Your task to perform on an android device: Open Android settings Image 0: 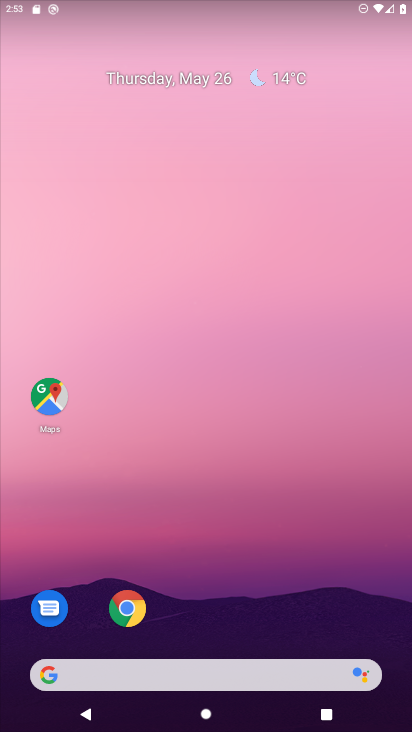
Step 0: drag from (288, 600) to (302, 145)
Your task to perform on an android device: Open Android settings Image 1: 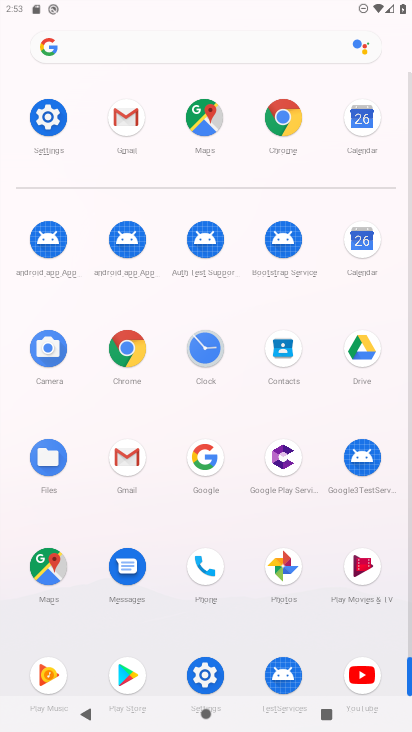
Step 1: click (54, 121)
Your task to perform on an android device: Open Android settings Image 2: 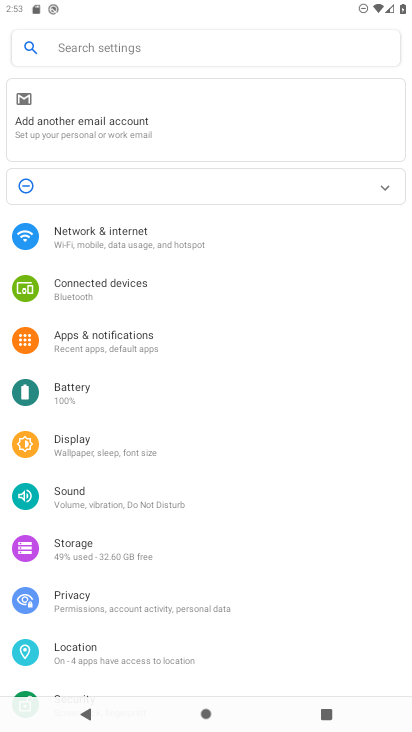
Step 2: task complete